Your task to perform on an android device: choose inbox layout in the gmail app Image 0: 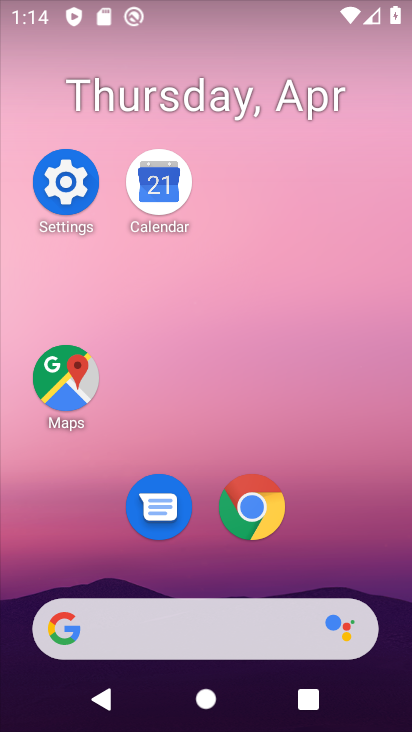
Step 0: drag from (301, 564) to (323, 4)
Your task to perform on an android device: choose inbox layout in the gmail app Image 1: 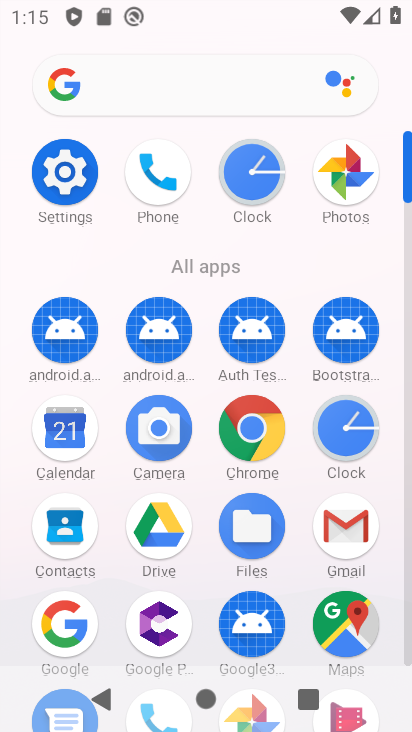
Step 1: drag from (348, 530) to (203, 316)
Your task to perform on an android device: choose inbox layout in the gmail app Image 2: 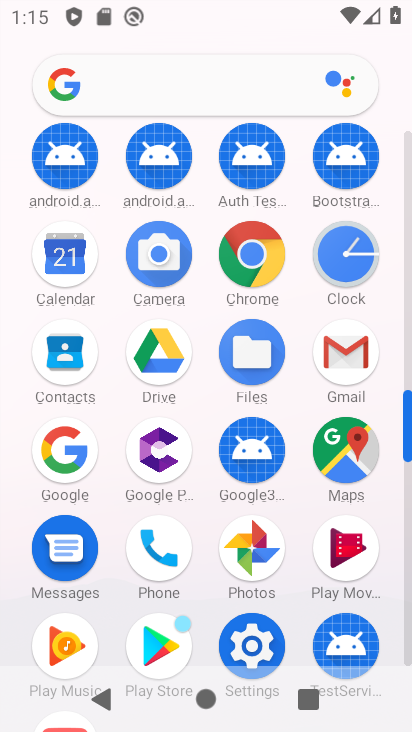
Step 2: drag from (338, 358) to (238, 229)
Your task to perform on an android device: choose inbox layout in the gmail app Image 3: 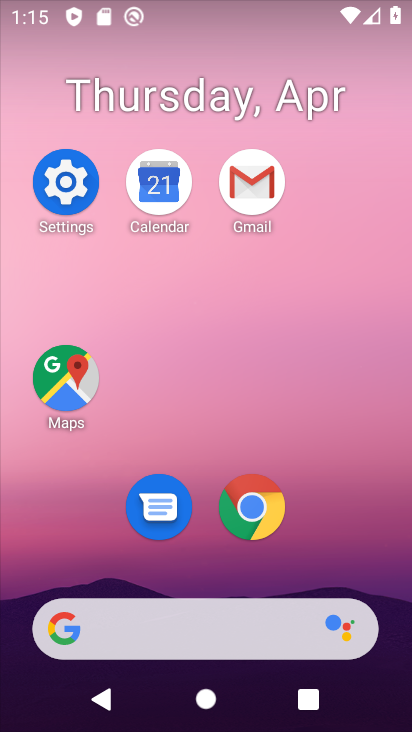
Step 3: click (269, 191)
Your task to perform on an android device: choose inbox layout in the gmail app Image 4: 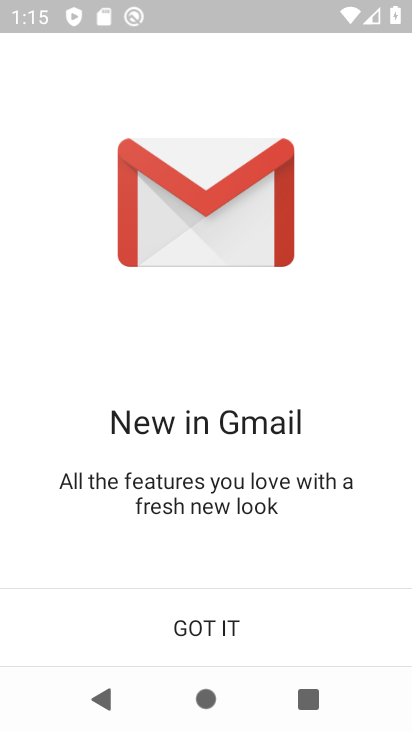
Step 4: click (242, 619)
Your task to perform on an android device: choose inbox layout in the gmail app Image 5: 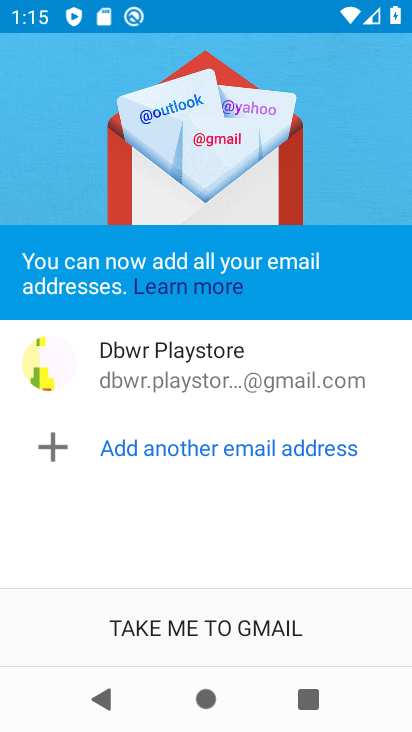
Step 5: click (252, 635)
Your task to perform on an android device: choose inbox layout in the gmail app Image 6: 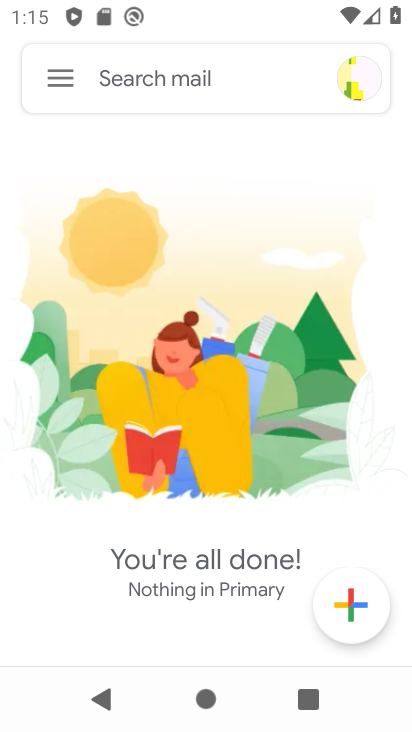
Step 6: click (72, 76)
Your task to perform on an android device: choose inbox layout in the gmail app Image 7: 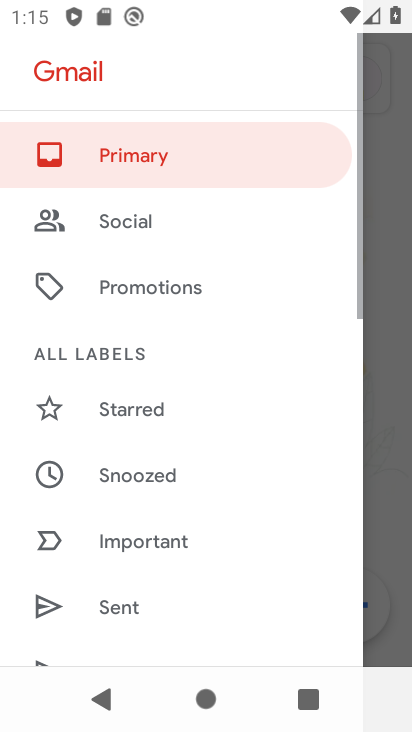
Step 7: drag from (199, 559) to (248, 79)
Your task to perform on an android device: choose inbox layout in the gmail app Image 8: 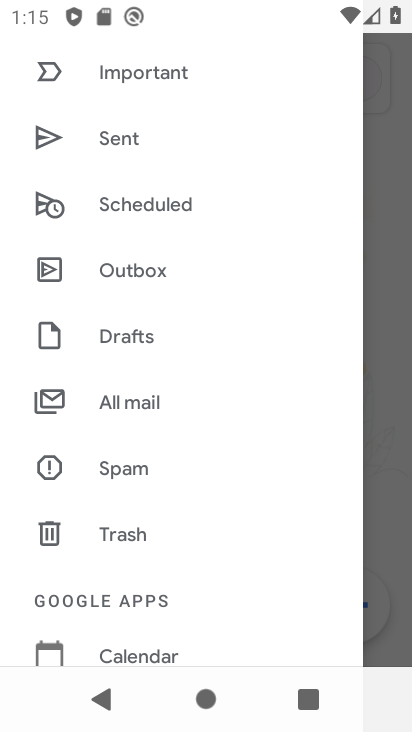
Step 8: drag from (168, 565) to (221, 104)
Your task to perform on an android device: choose inbox layout in the gmail app Image 9: 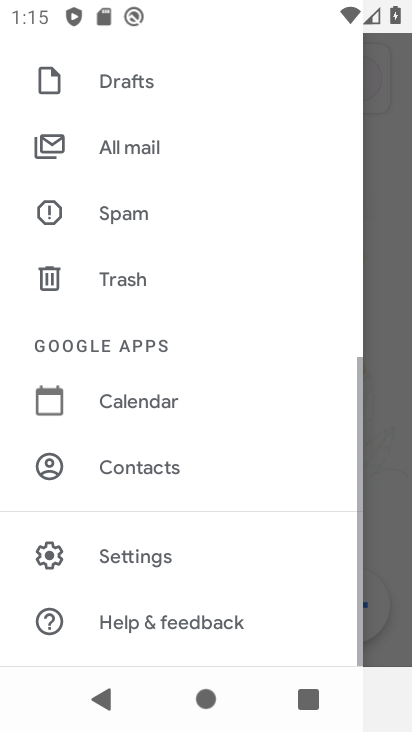
Step 9: click (213, 577)
Your task to perform on an android device: choose inbox layout in the gmail app Image 10: 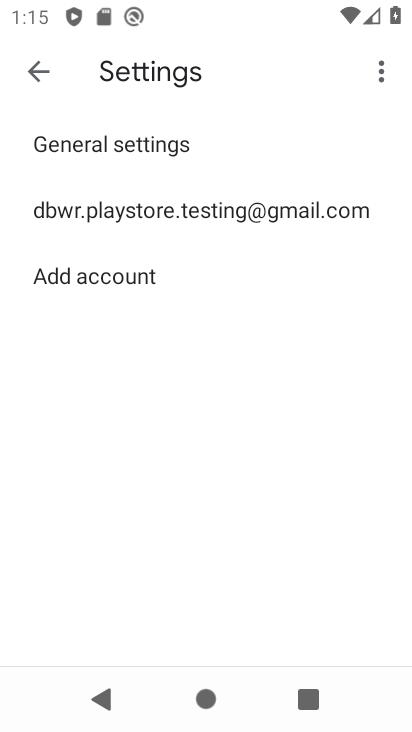
Step 10: click (241, 202)
Your task to perform on an android device: choose inbox layout in the gmail app Image 11: 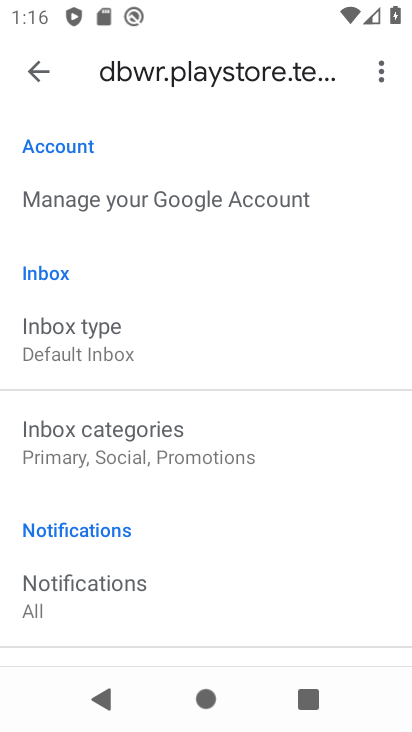
Step 11: click (141, 349)
Your task to perform on an android device: choose inbox layout in the gmail app Image 12: 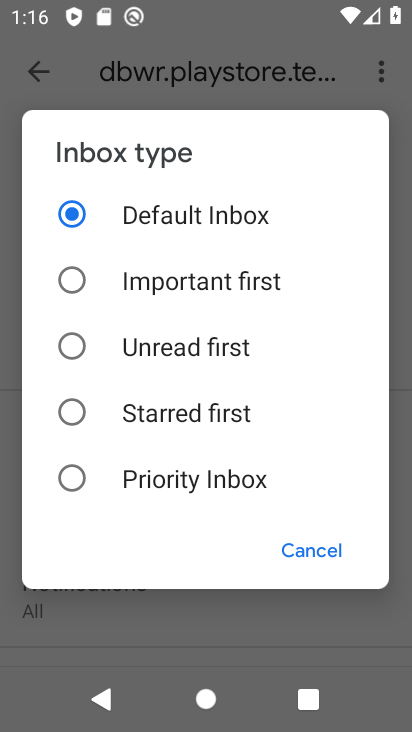
Step 12: task complete